Your task to perform on an android device: check storage Image 0: 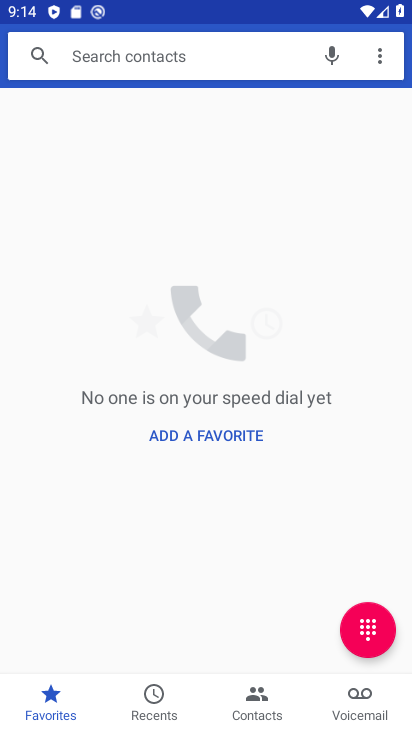
Step 0: task complete